Your task to perform on an android device: open a new tab in the chrome app Image 0: 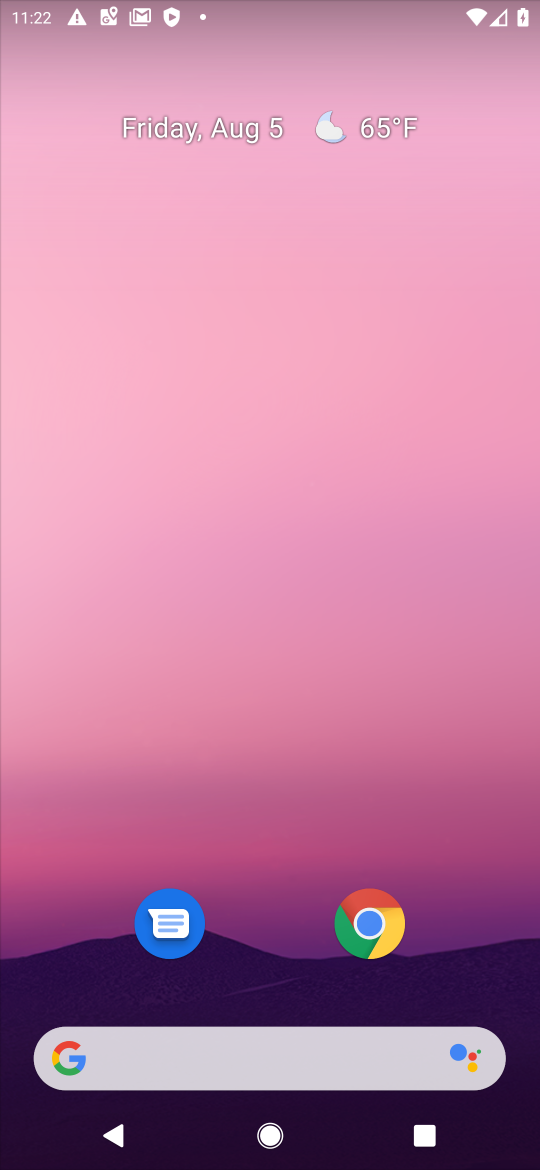
Step 0: drag from (397, 1064) to (267, 205)
Your task to perform on an android device: open a new tab in the chrome app Image 1: 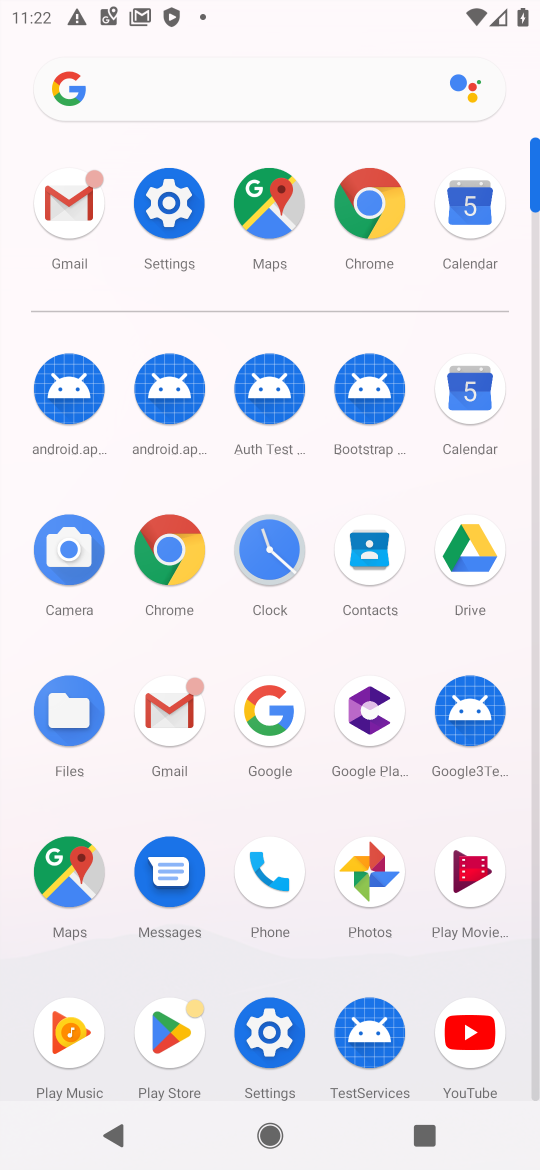
Step 1: click (155, 540)
Your task to perform on an android device: open a new tab in the chrome app Image 2: 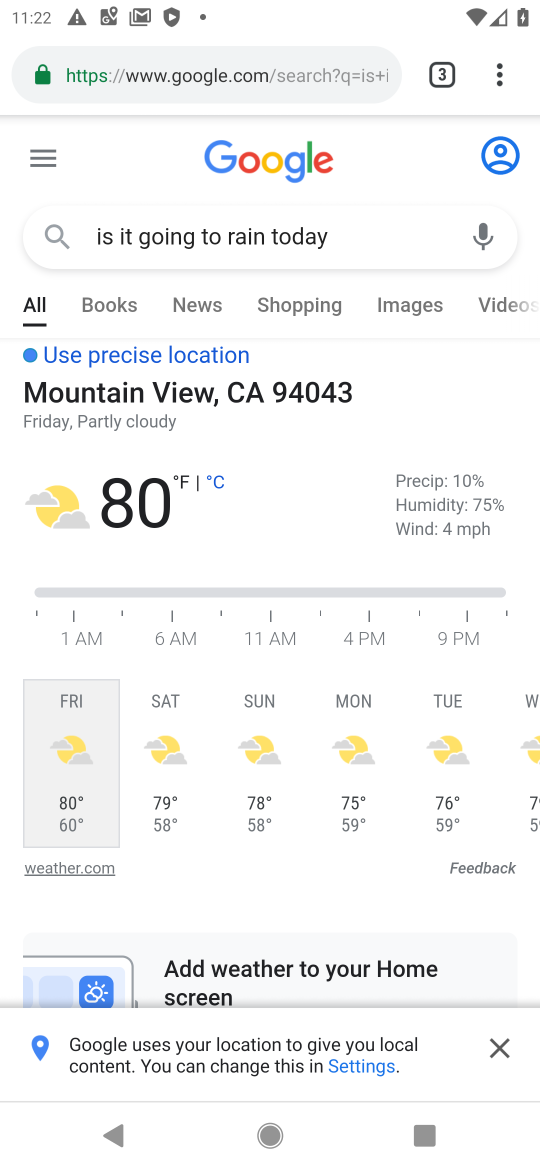
Step 2: click (494, 79)
Your task to perform on an android device: open a new tab in the chrome app Image 3: 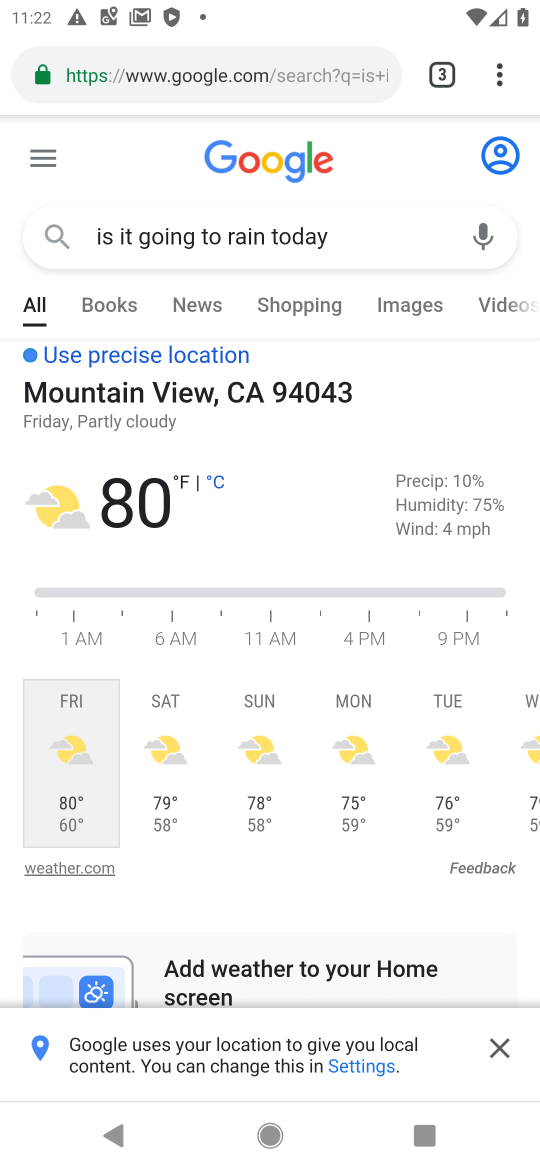
Step 3: drag from (494, 79) to (385, 138)
Your task to perform on an android device: open a new tab in the chrome app Image 4: 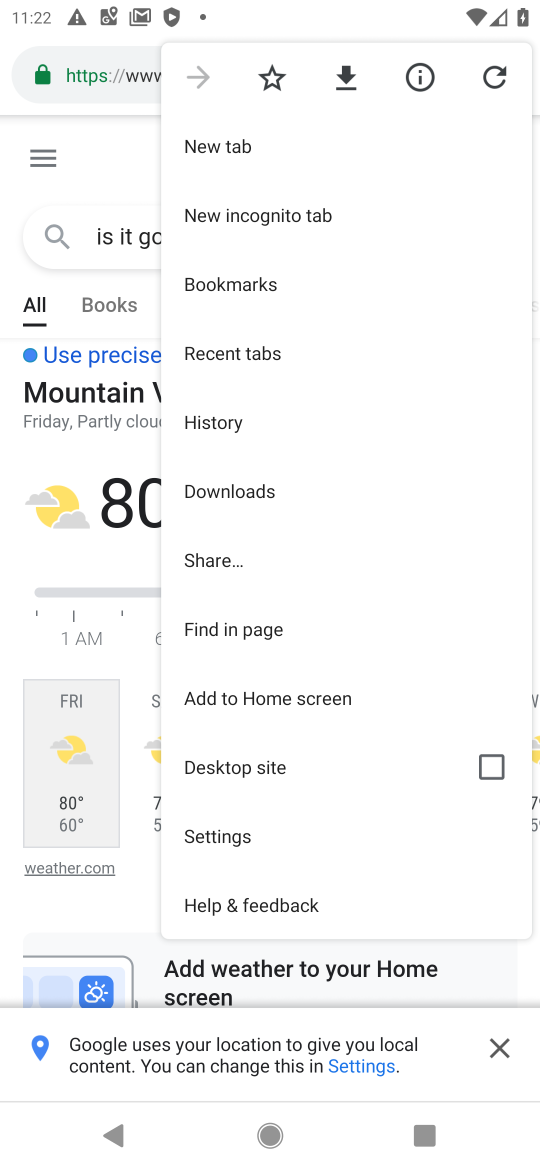
Step 4: click (346, 145)
Your task to perform on an android device: open a new tab in the chrome app Image 5: 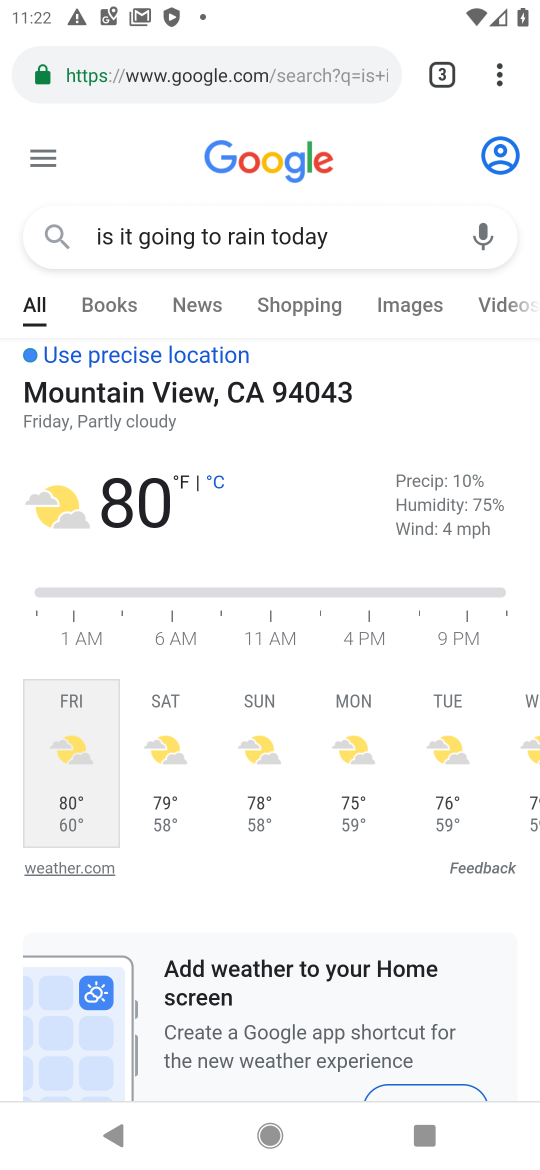
Step 5: click (270, 151)
Your task to perform on an android device: open a new tab in the chrome app Image 6: 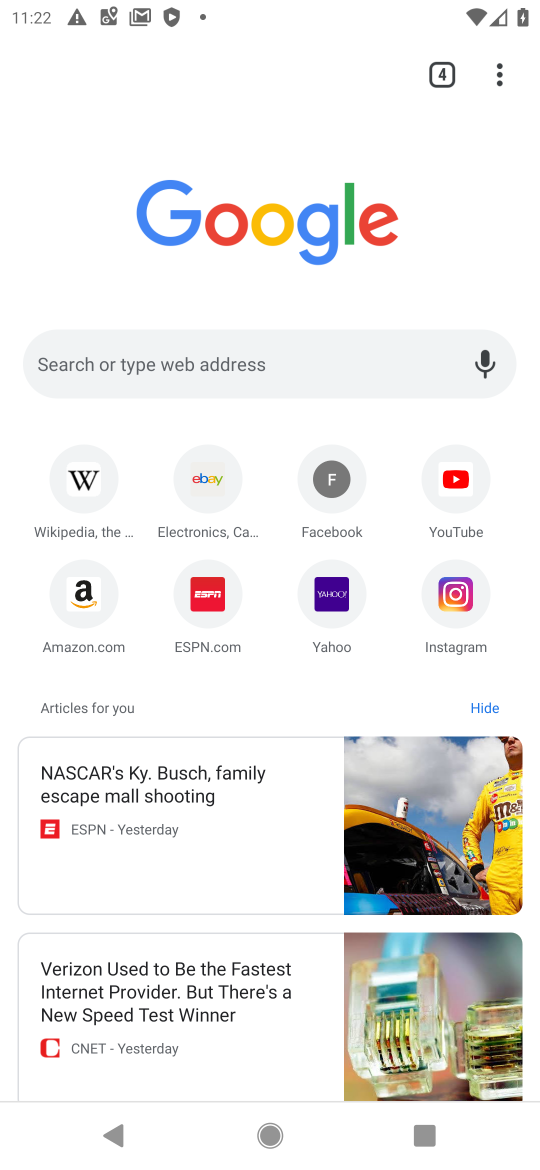
Step 6: task complete